Your task to perform on an android device: Is it going to rain today? Image 0: 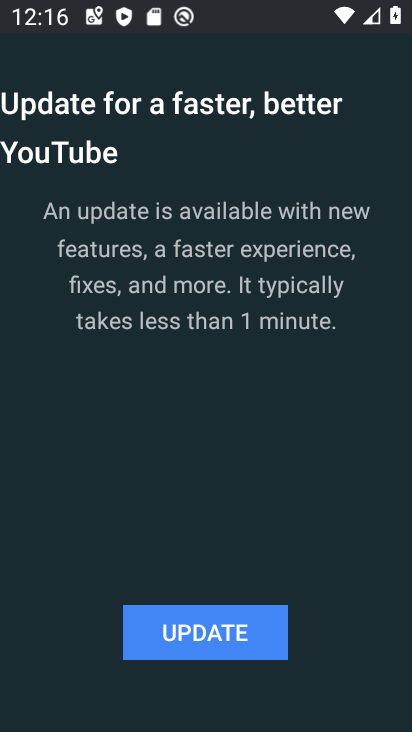
Step 0: press home button
Your task to perform on an android device: Is it going to rain today? Image 1: 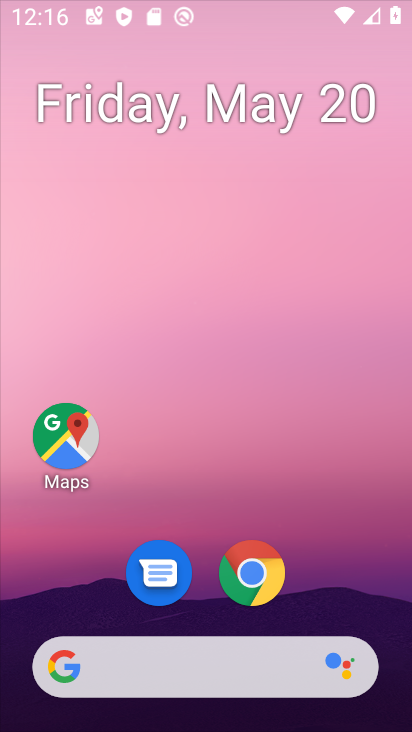
Step 1: drag from (354, 550) to (355, 41)
Your task to perform on an android device: Is it going to rain today? Image 2: 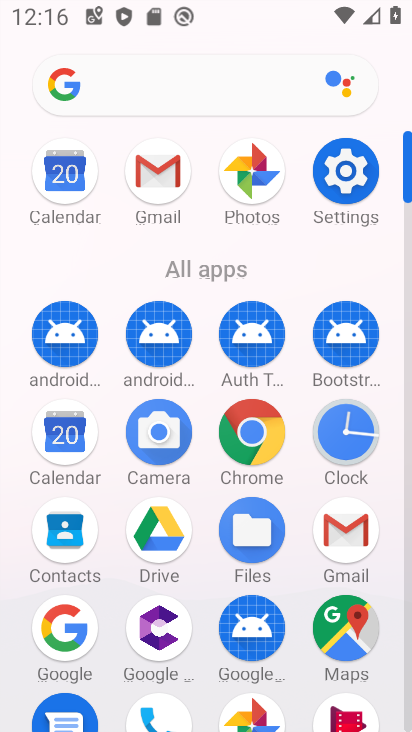
Step 2: click (72, 631)
Your task to perform on an android device: Is it going to rain today? Image 3: 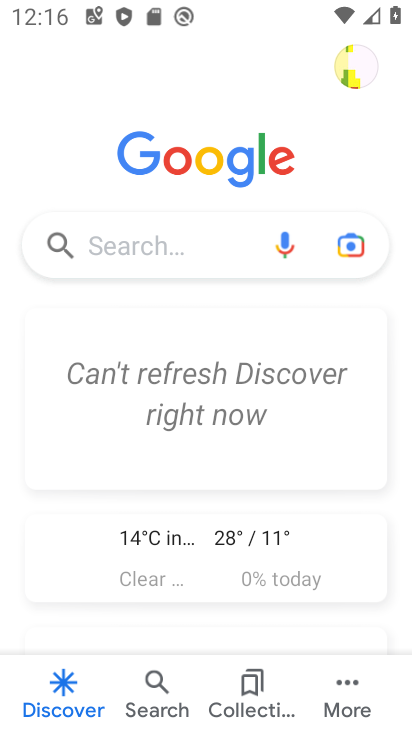
Step 3: click (123, 235)
Your task to perform on an android device: Is it going to rain today? Image 4: 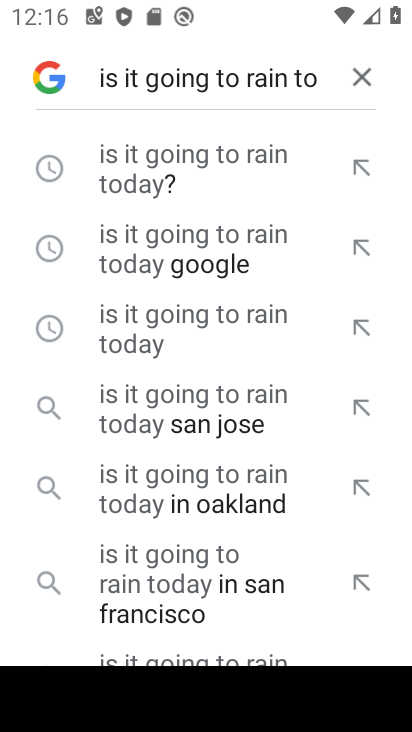
Step 4: click (208, 168)
Your task to perform on an android device: Is it going to rain today? Image 5: 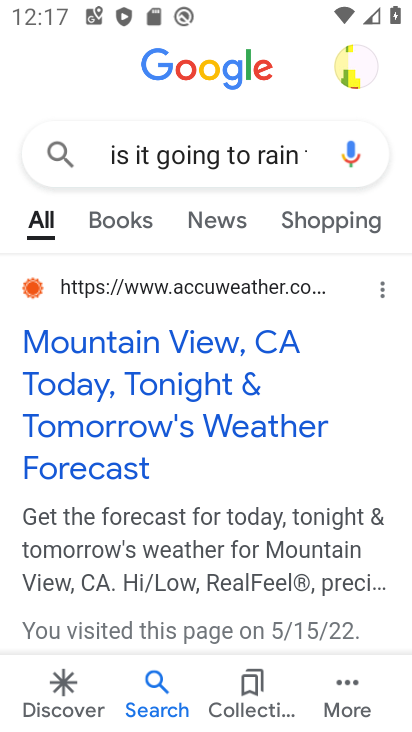
Step 5: task complete